Your task to perform on an android device: Open calendar and show me the first week of next month Image 0: 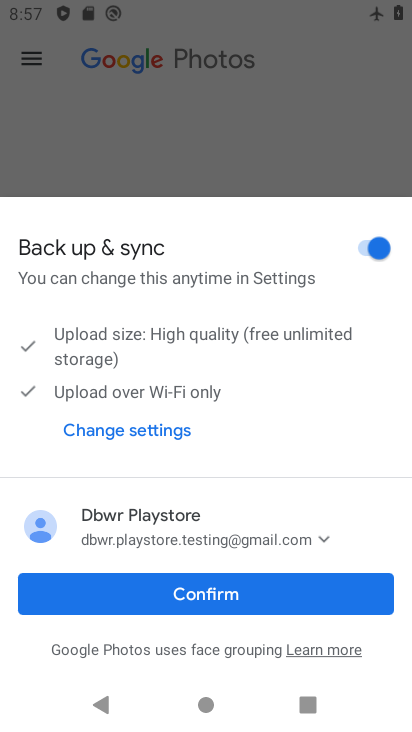
Step 0: press home button
Your task to perform on an android device: Open calendar and show me the first week of next month Image 1: 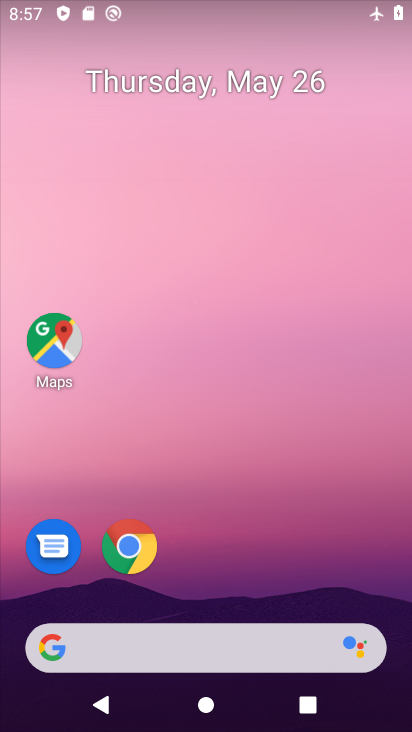
Step 1: drag from (272, 586) to (192, 312)
Your task to perform on an android device: Open calendar and show me the first week of next month Image 2: 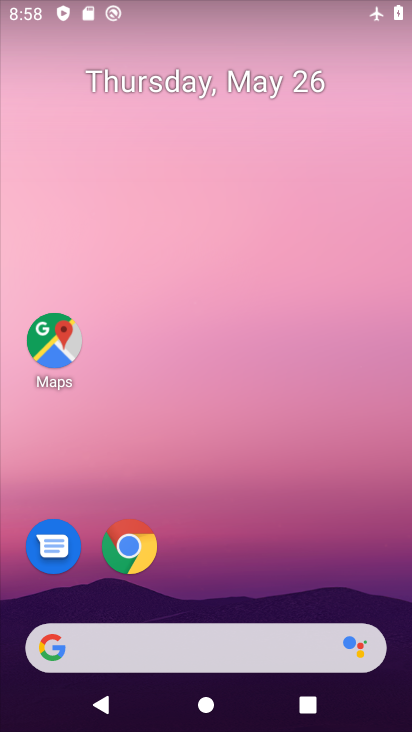
Step 2: drag from (222, 542) to (141, 169)
Your task to perform on an android device: Open calendar and show me the first week of next month Image 3: 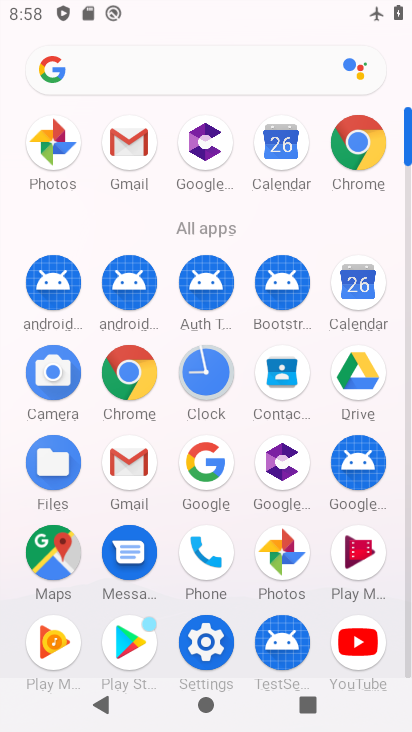
Step 3: click (375, 279)
Your task to perform on an android device: Open calendar and show me the first week of next month Image 4: 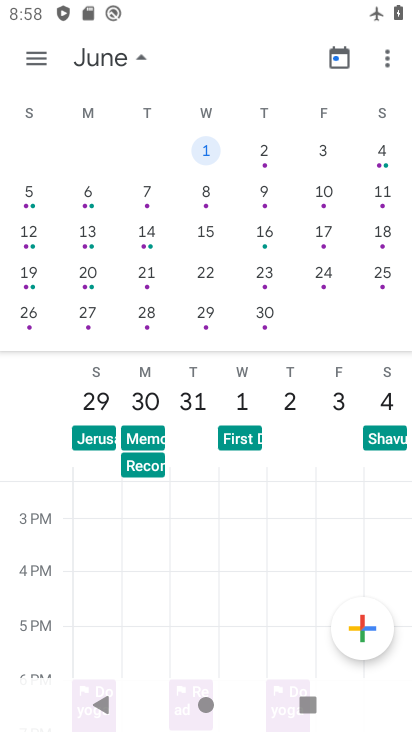
Step 4: task complete